Your task to perform on an android device: open app "Paramount+ | Peak Streaming" (install if not already installed) Image 0: 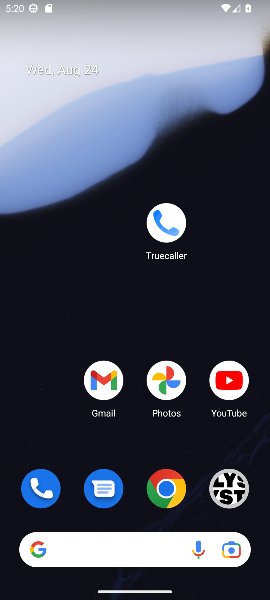
Step 0: drag from (134, 521) to (112, 13)
Your task to perform on an android device: open app "Paramount+ | Peak Streaming" (install if not already installed) Image 1: 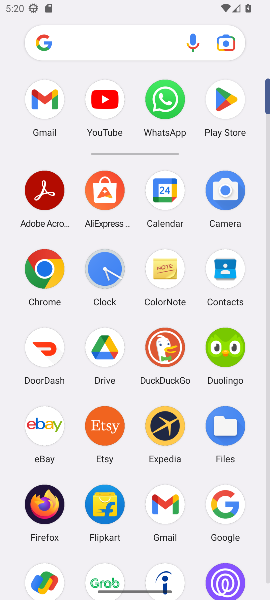
Step 1: click (218, 105)
Your task to perform on an android device: open app "Paramount+ | Peak Streaming" (install if not already installed) Image 2: 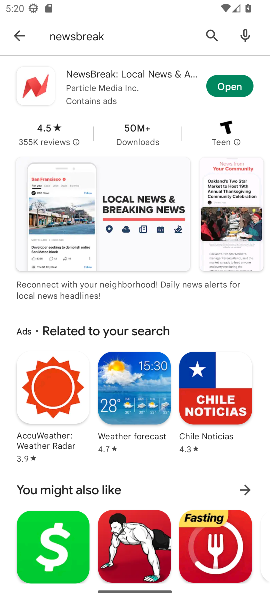
Step 2: click (198, 32)
Your task to perform on an android device: open app "Paramount+ | Peak Streaming" (install if not already installed) Image 3: 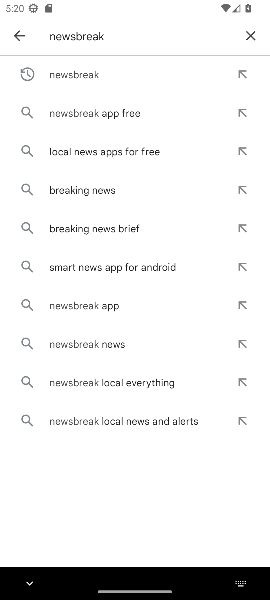
Step 3: click (256, 46)
Your task to perform on an android device: open app "Paramount+ | Peak Streaming" (install if not already installed) Image 4: 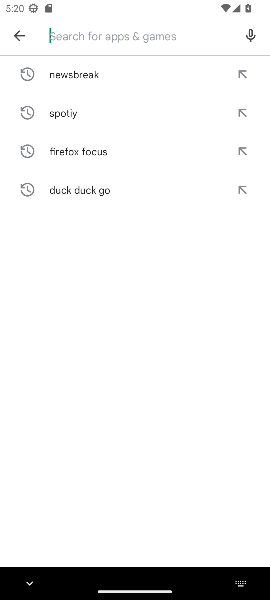
Step 4: type "paramount"
Your task to perform on an android device: open app "Paramount+ | Peak Streaming" (install if not already installed) Image 5: 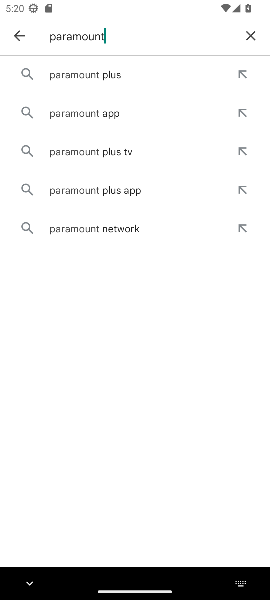
Step 5: click (125, 80)
Your task to perform on an android device: open app "Paramount+ | Peak Streaming" (install if not already installed) Image 6: 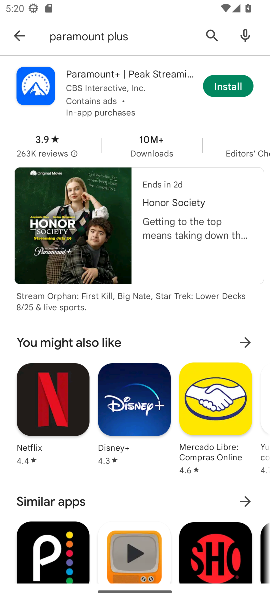
Step 6: click (224, 78)
Your task to perform on an android device: open app "Paramount+ | Peak Streaming" (install if not already installed) Image 7: 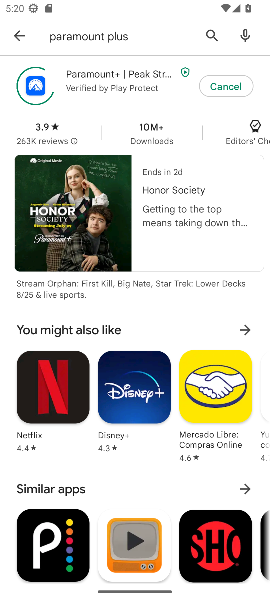
Step 7: task complete